Your task to perform on an android device: check android version Image 0: 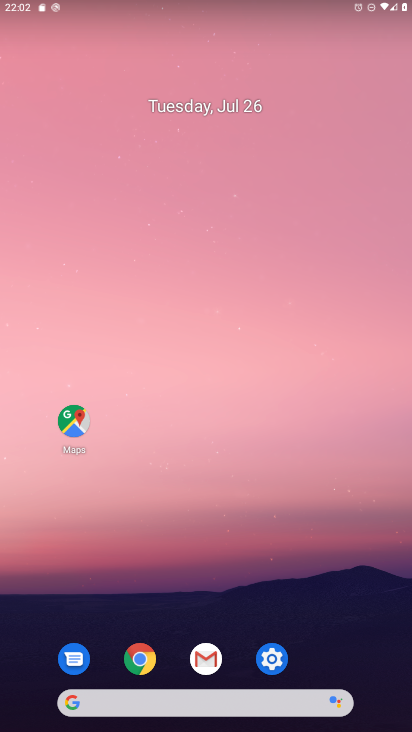
Step 0: click (271, 671)
Your task to perform on an android device: check android version Image 1: 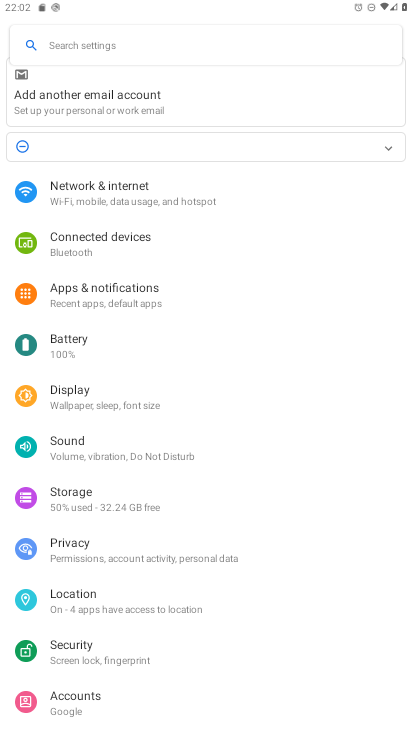
Step 1: click (64, 43)
Your task to perform on an android device: check android version Image 2: 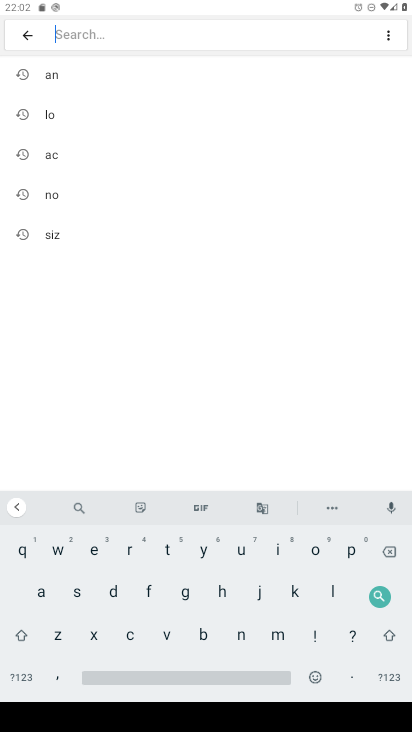
Step 2: click (40, 590)
Your task to perform on an android device: check android version Image 3: 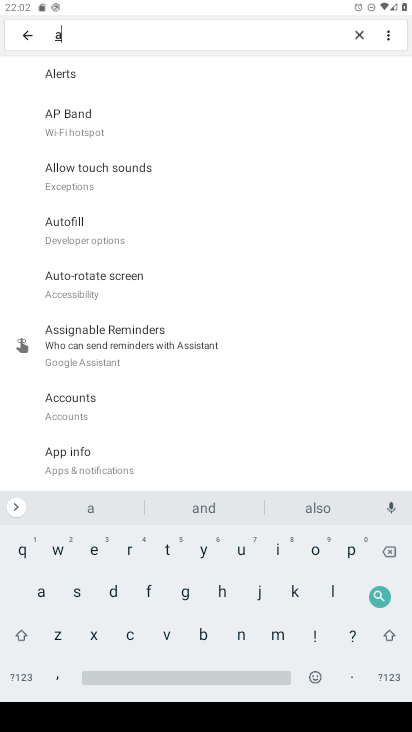
Step 3: click (239, 632)
Your task to perform on an android device: check android version Image 4: 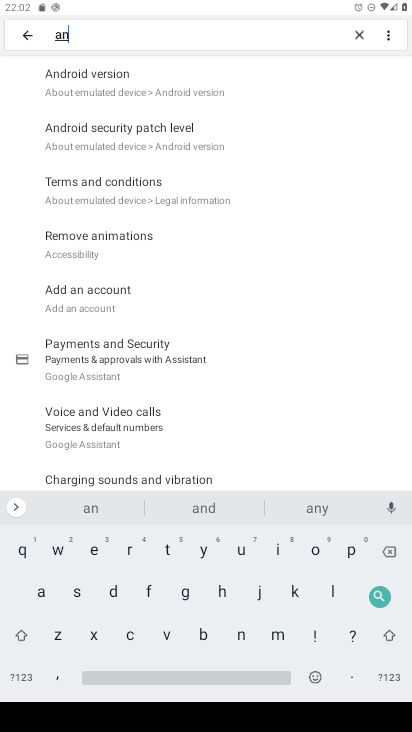
Step 4: click (109, 81)
Your task to perform on an android device: check android version Image 5: 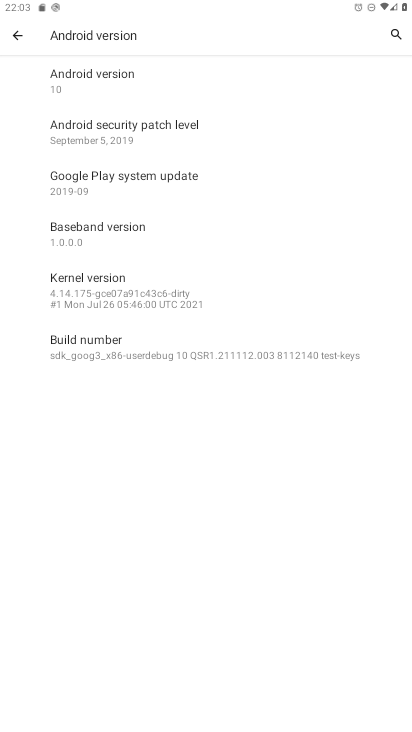
Step 5: task complete